Your task to perform on an android device: turn off javascript in the chrome app Image 0: 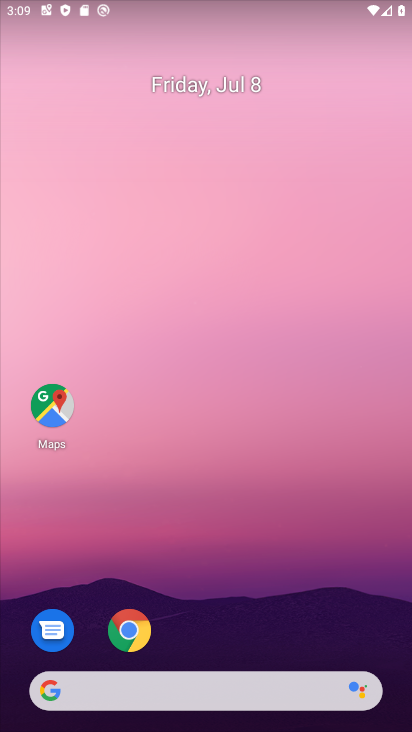
Step 0: drag from (292, 626) to (187, 88)
Your task to perform on an android device: turn off javascript in the chrome app Image 1: 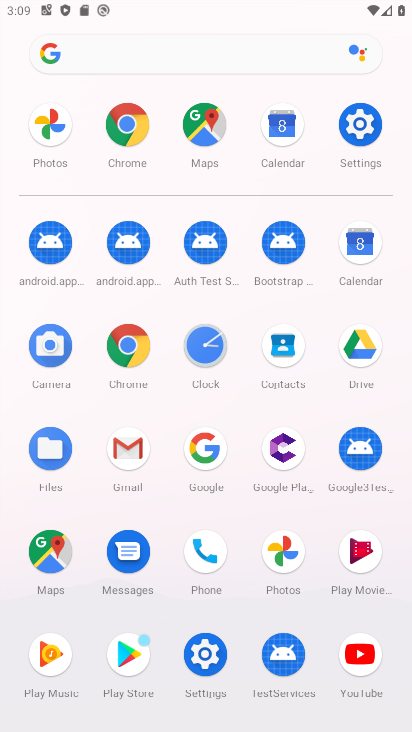
Step 1: click (124, 143)
Your task to perform on an android device: turn off javascript in the chrome app Image 2: 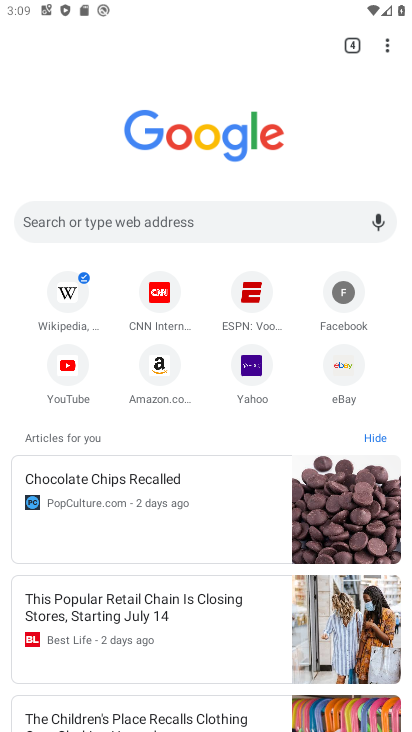
Step 2: click (389, 46)
Your task to perform on an android device: turn off javascript in the chrome app Image 3: 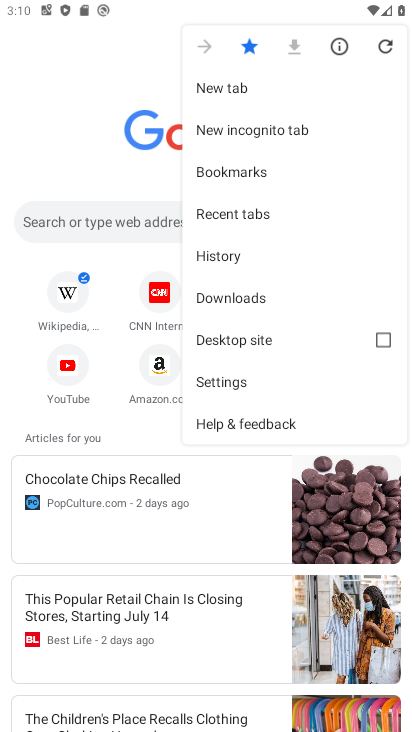
Step 3: click (279, 388)
Your task to perform on an android device: turn off javascript in the chrome app Image 4: 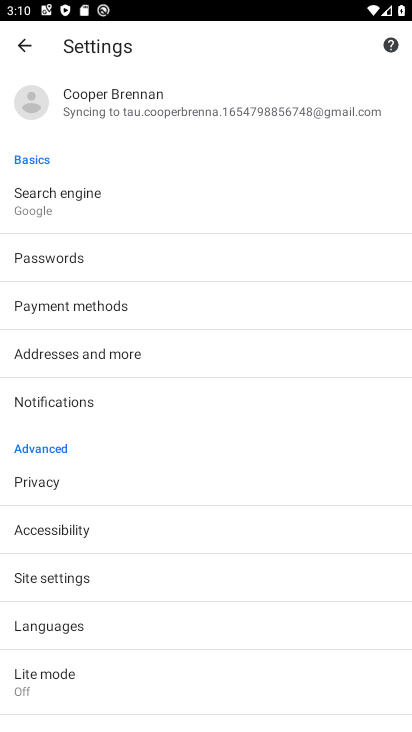
Step 4: click (144, 583)
Your task to perform on an android device: turn off javascript in the chrome app Image 5: 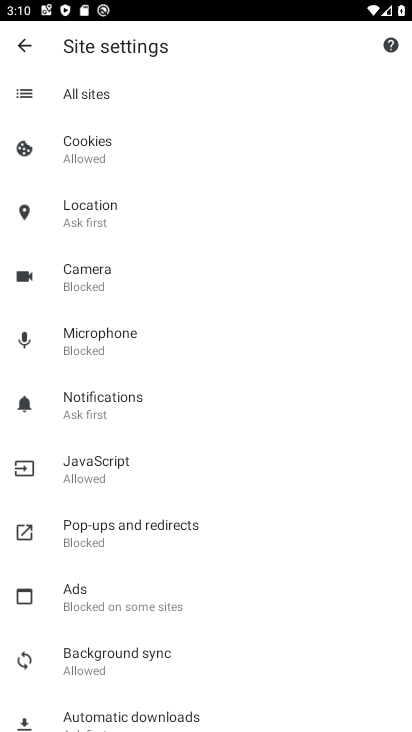
Step 5: click (69, 449)
Your task to perform on an android device: turn off javascript in the chrome app Image 6: 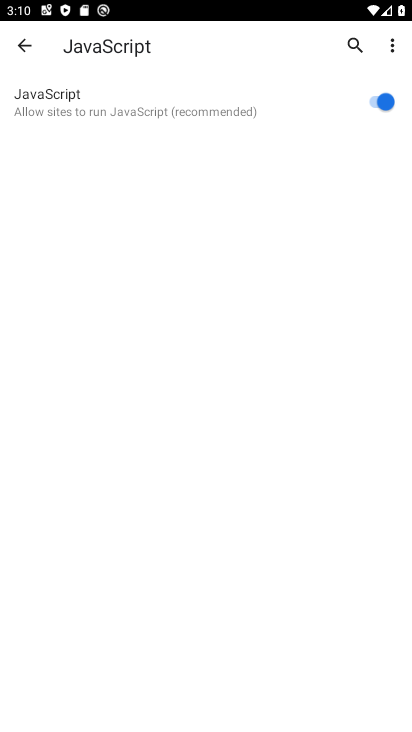
Step 6: click (393, 97)
Your task to perform on an android device: turn off javascript in the chrome app Image 7: 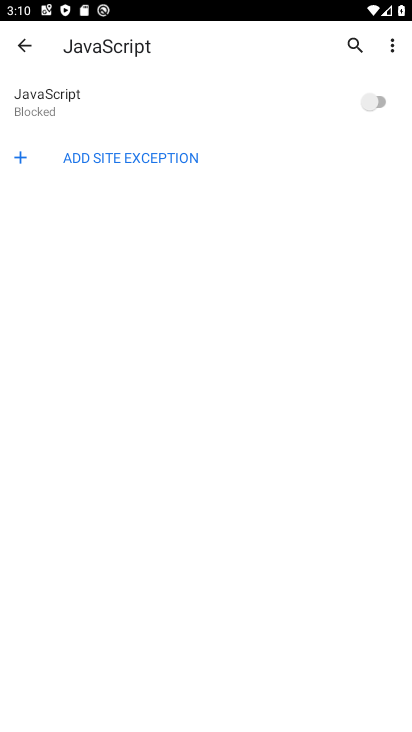
Step 7: task complete